Your task to perform on an android device: set default search engine in the chrome app Image 0: 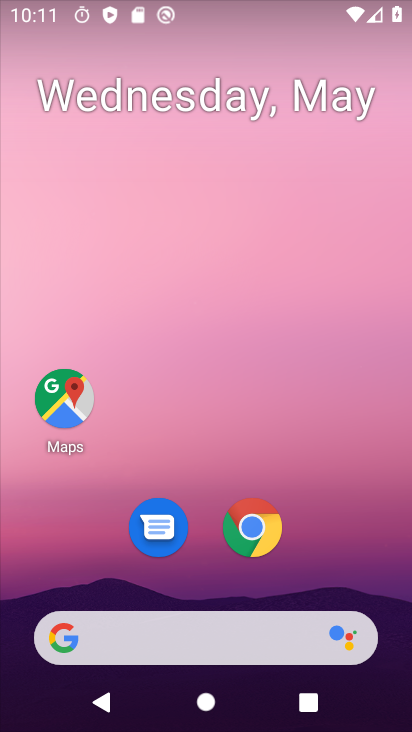
Step 0: click (264, 168)
Your task to perform on an android device: set default search engine in the chrome app Image 1: 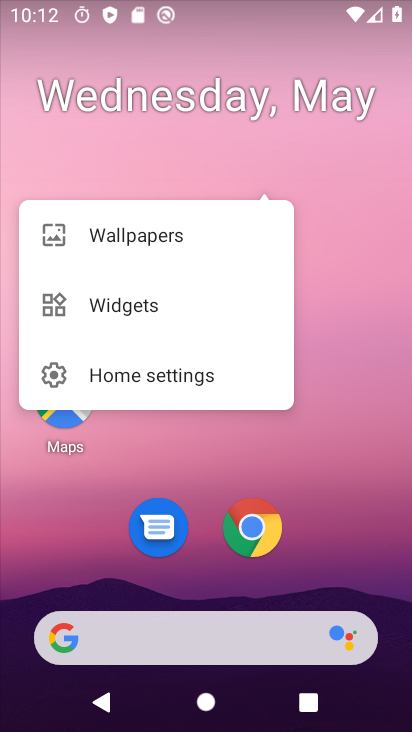
Step 1: click (326, 315)
Your task to perform on an android device: set default search engine in the chrome app Image 2: 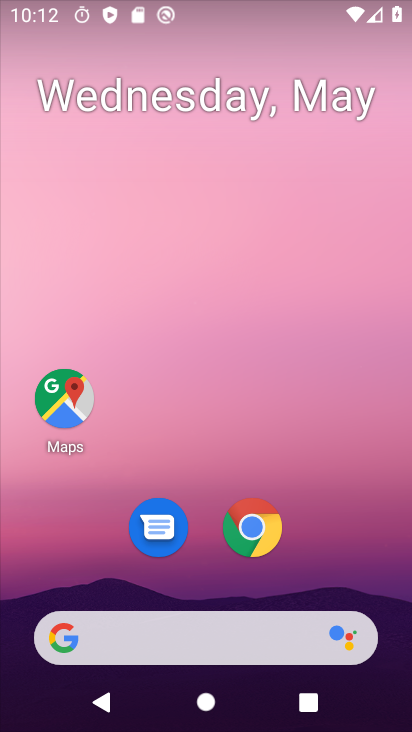
Step 2: drag from (262, 450) to (262, 172)
Your task to perform on an android device: set default search engine in the chrome app Image 3: 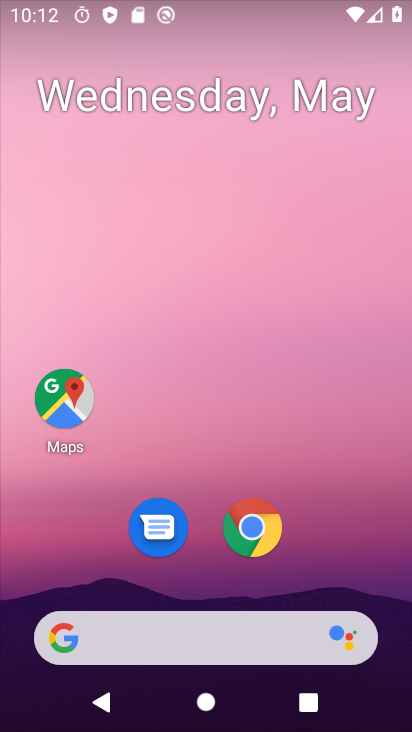
Step 3: drag from (356, 560) to (256, 55)
Your task to perform on an android device: set default search engine in the chrome app Image 4: 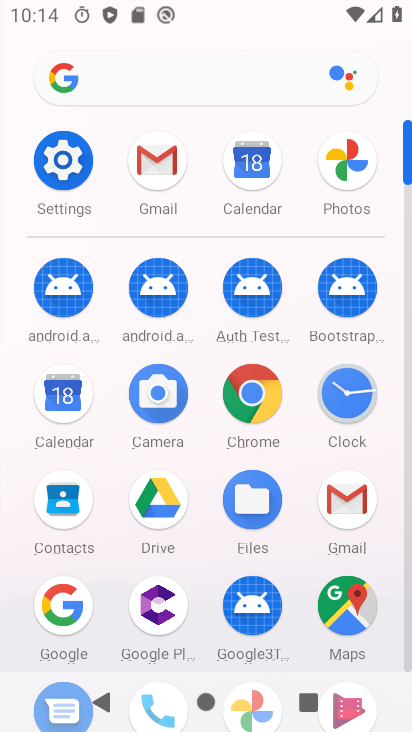
Step 4: click (231, 407)
Your task to perform on an android device: set default search engine in the chrome app Image 5: 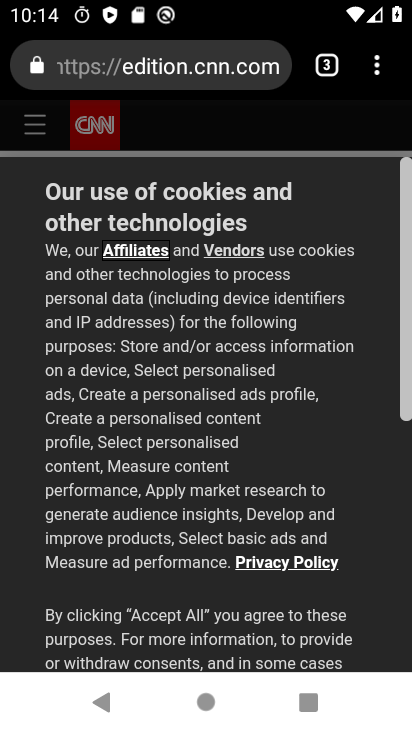
Step 5: drag from (379, 64) to (212, 567)
Your task to perform on an android device: set default search engine in the chrome app Image 6: 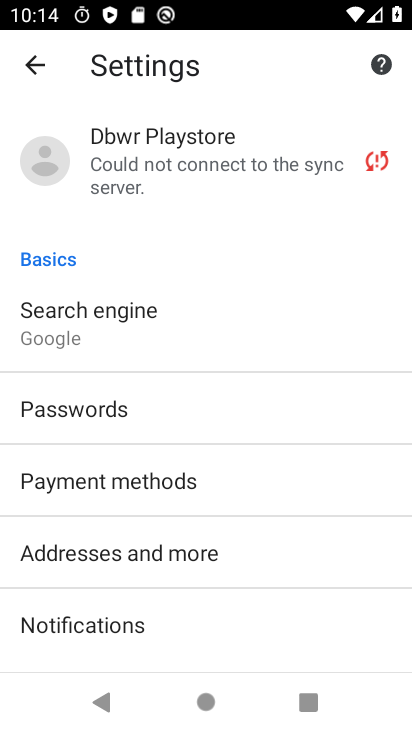
Step 6: drag from (280, 455) to (141, 166)
Your task to perform on an android device: set default search engine in the chrome app Image 7: 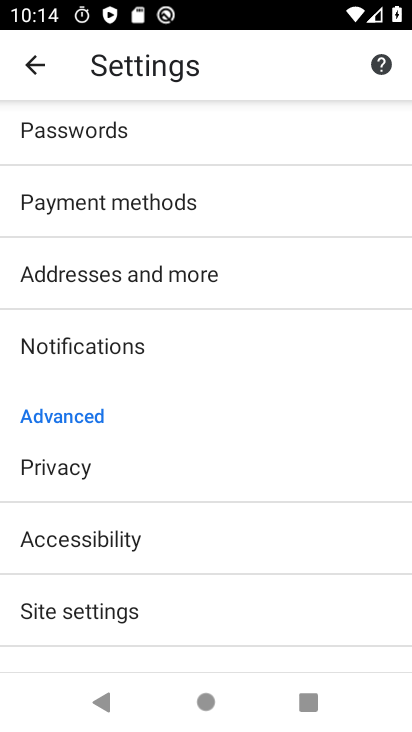
Step 7: click (141, 609)
Your task to perform on an android device: set default search engine in the chrome app Image 8: 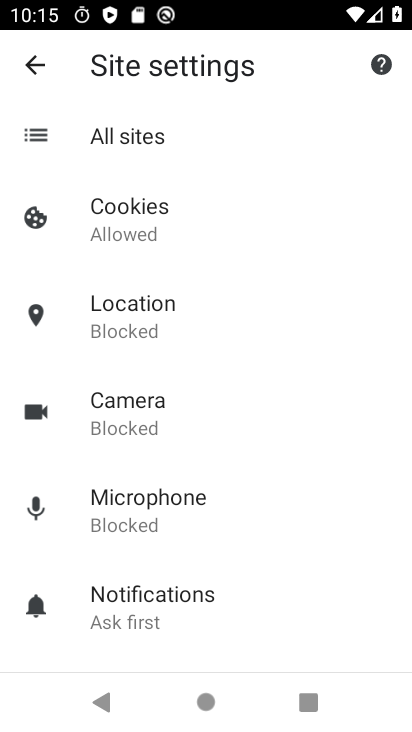
Step 8: click (186, 122)
Your task to perform on an android device: set default search engine in the chrome app Image 9: 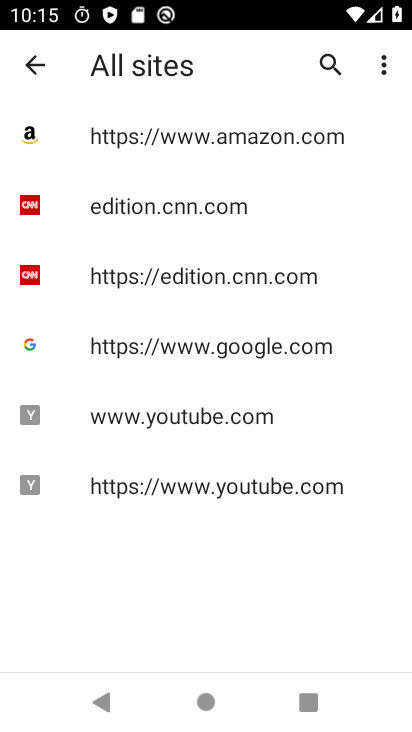
Step 9: click (91, 346)
Your task to perform on an android device: set default search engine in the chrome app Image 10: 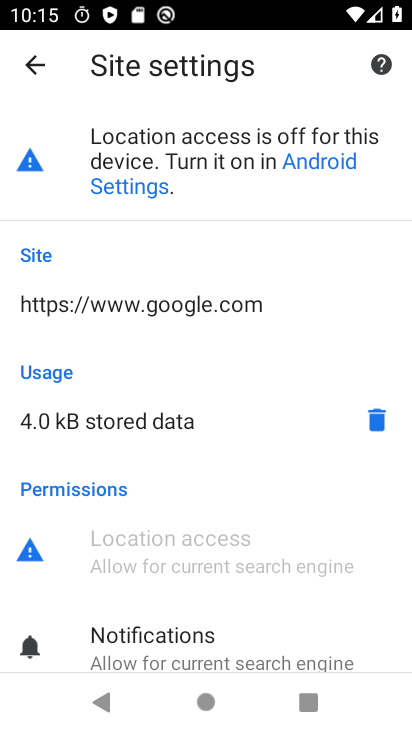
Step 10: click (117, 631)
Your task to perform on an android device: set default search engine in the chrome app Image 11: 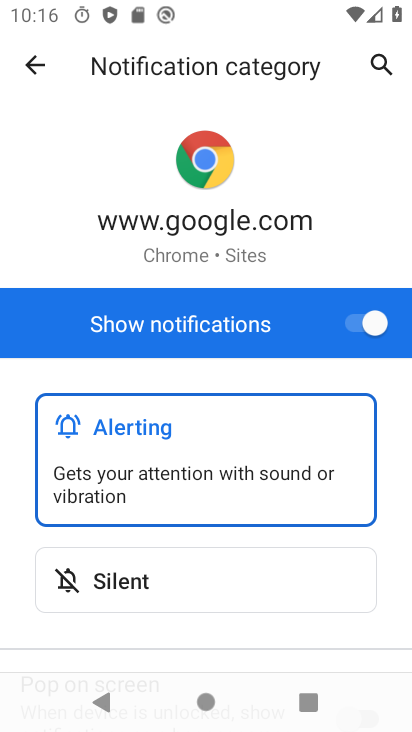
Step 11: drag from (183, 618) to (192, 272)
Your task to perform on an android device: set default search engine in the chrome app Image 12: 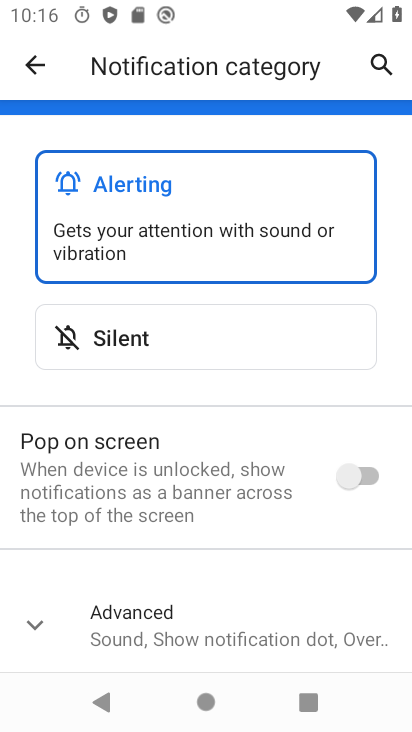
Step 12: click (190, 503)
Your task to perform on an android device: set default search engine in the chrome app Image 13: 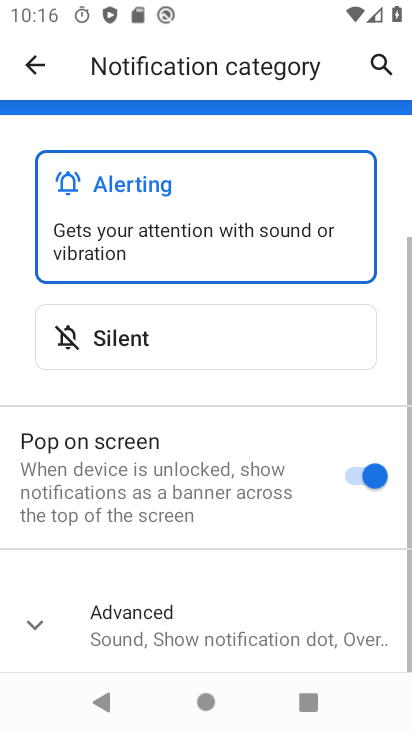
Step 13: click (202, 612)
Your task to perform on an android device: set default search engine in the chrome app Image 14: 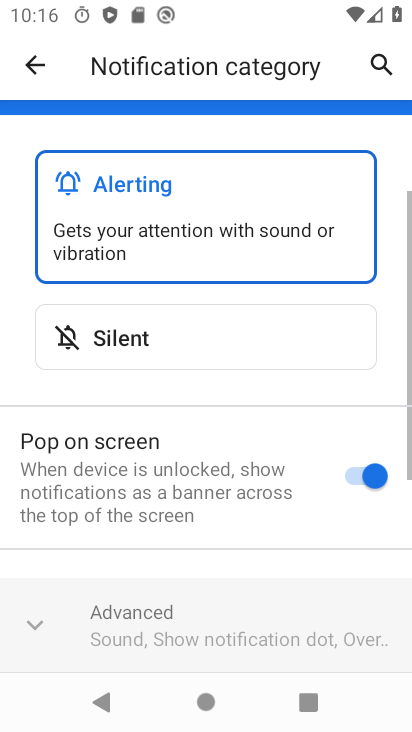
Step 14: drag from (198, 612) to (159, 342)
Your task to perform on an android device: set default search engine in the chrome app Image 15: 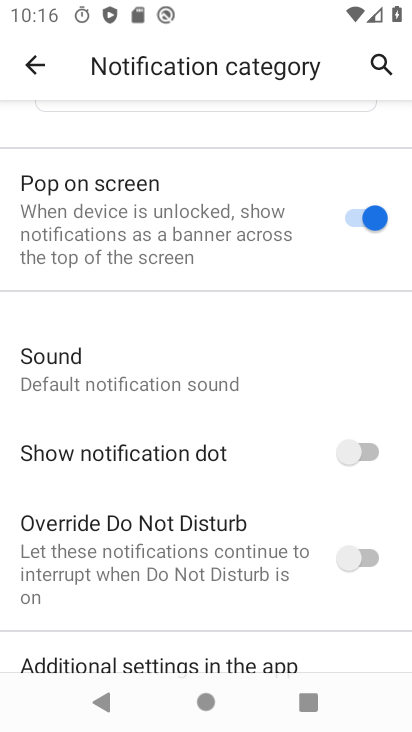
Step 15: click (197, 441)
Your task to perform on an android device: set default search engine in the chrome app Image 16: 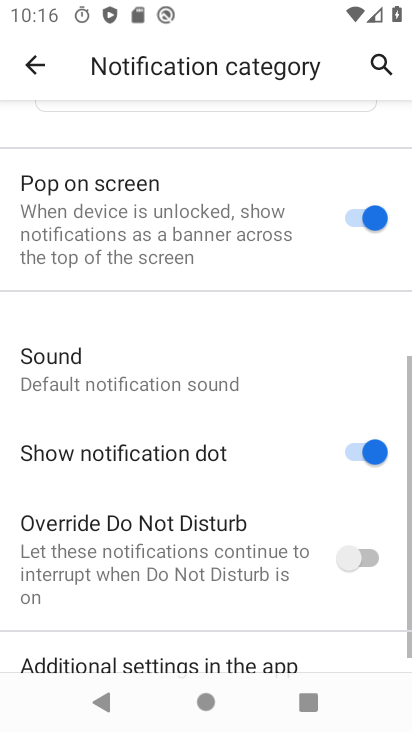
Step 16: click (205, 524)
Your task to perform on an android device: set default search engine in the chrome app Image 17: 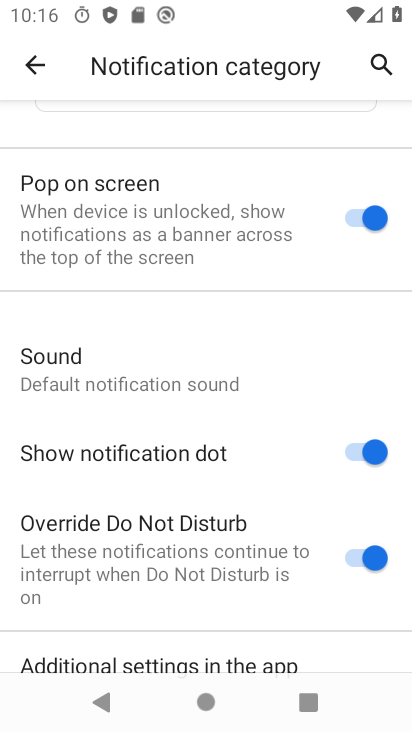
Step 17: task complete